Your task to perform on an android device: add a label to a message in the gmail app Image 0: 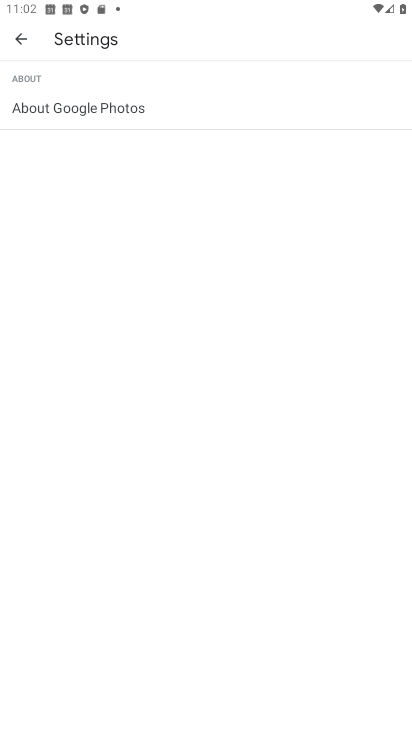
Step 0: drag from (264, 374) to (408, 96)
Your task to perform on an android device: add a label to a message in the gmail app Image 1: 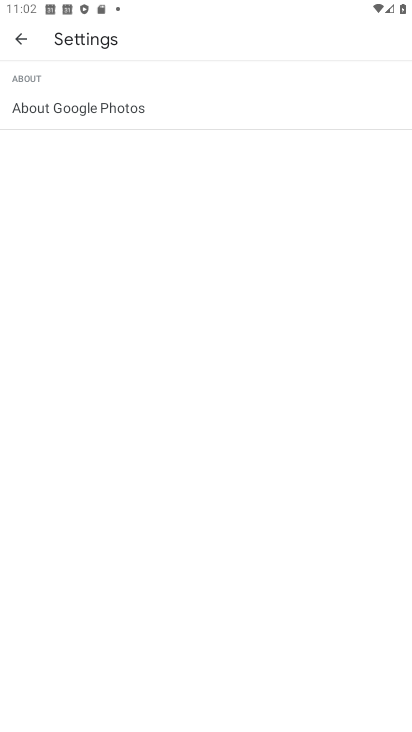
Step 1: press home button
Your task to perform on an android device: add a label to a message in the gmail app Image 2: 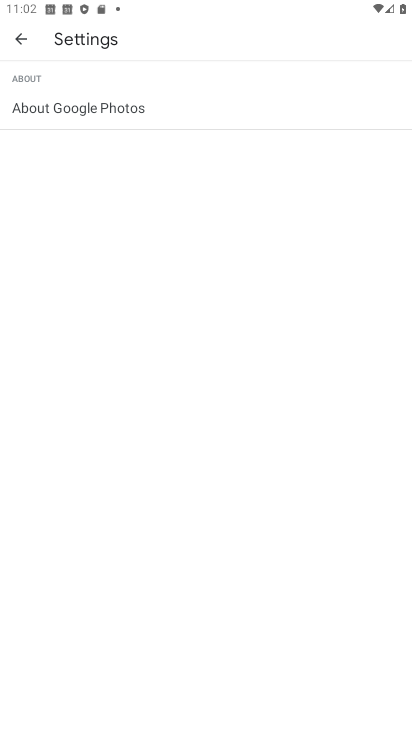
Step 2: press home button
Your task to perform on an android device: add a label to a message in the gmail app Image 3: 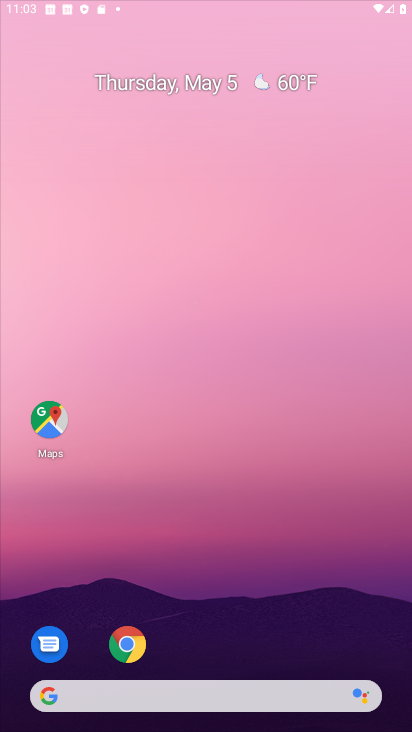
Step 3: press home button
Your task to perform on an android device: add a label to a message in the gmail app Image 4: 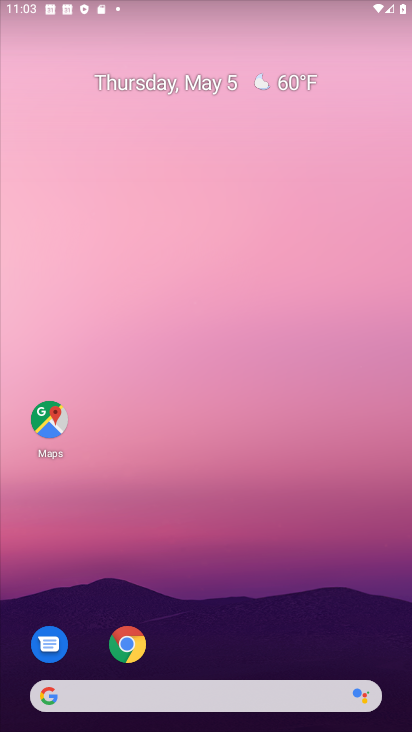
Step 4: press home button
Your task to perform on an android device: add a label to a message in the gmail app Image 5: 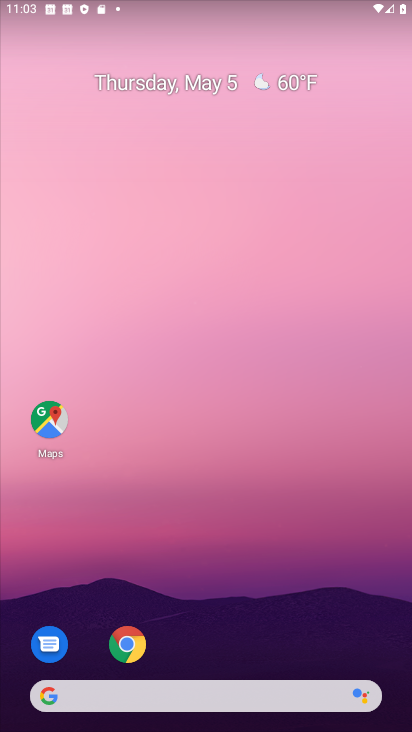
Step 5: drag from (197, 629) to (181, 208)
Your task to perform on an android device: add a label to a message in the gmail app Image 6: 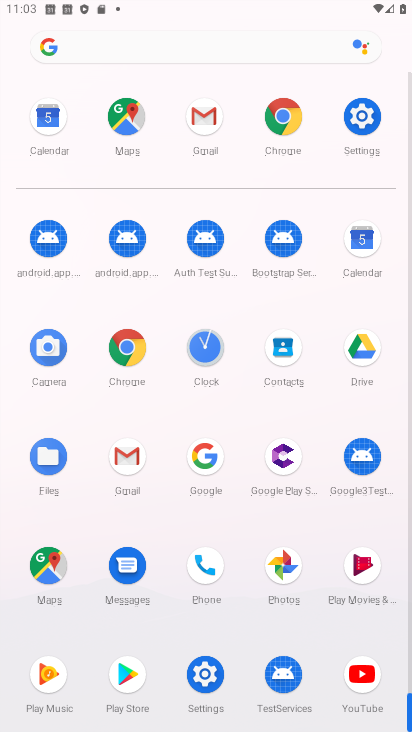
Step 6: click (128, 444)
Your task to perform on an android device: add a label to a message in the gmail app Image 7: 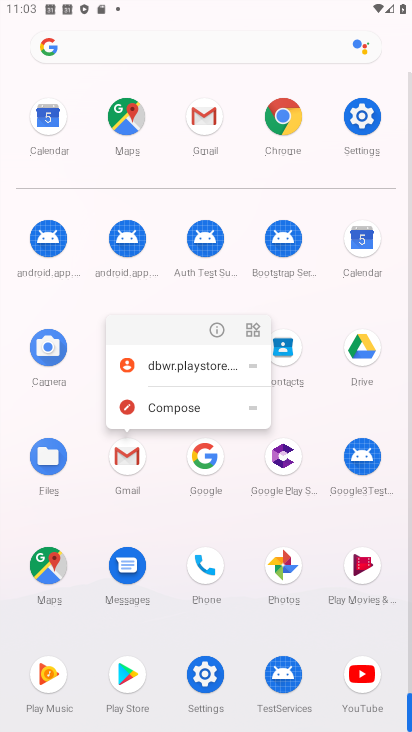
Step 7: click (216, 321)
Your task to perform on an android device: add a label to a message in the gmail app Image 8: 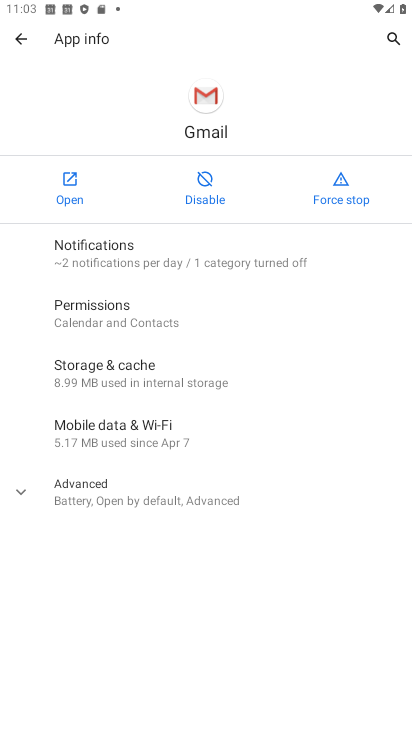
Step 8: click (74, 203)
Your task to perform on an android device: add a label to a message in the gmail app Image 9: 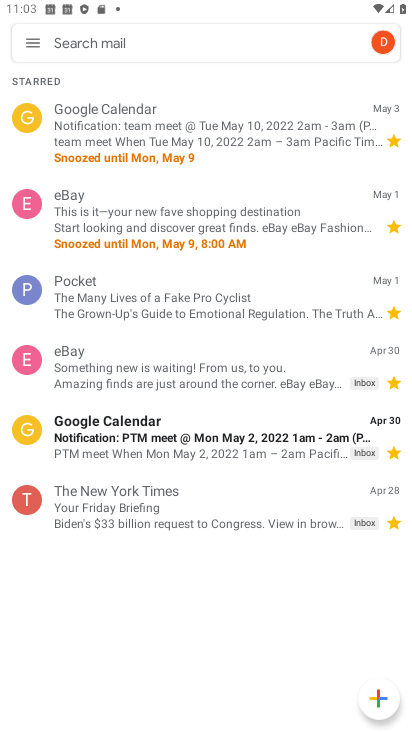
Step 9: click (36, 40)
Your task to perform on an android device: add a label to a message in the gmail app Image 10: 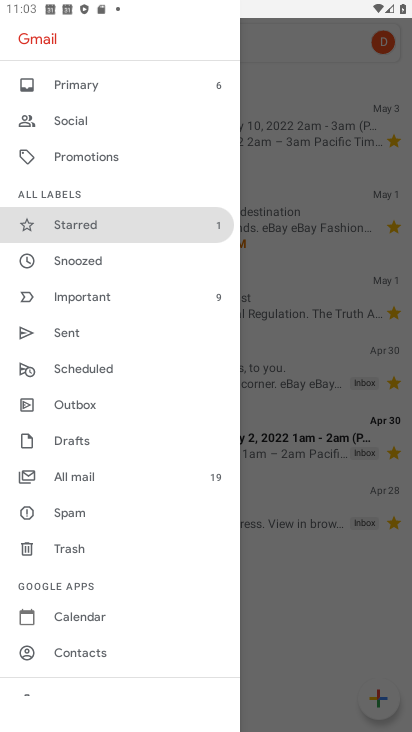
Step 10: click (328, 137)
Your task to perform on an android device: add a label to a message in the gmail app Image 11: 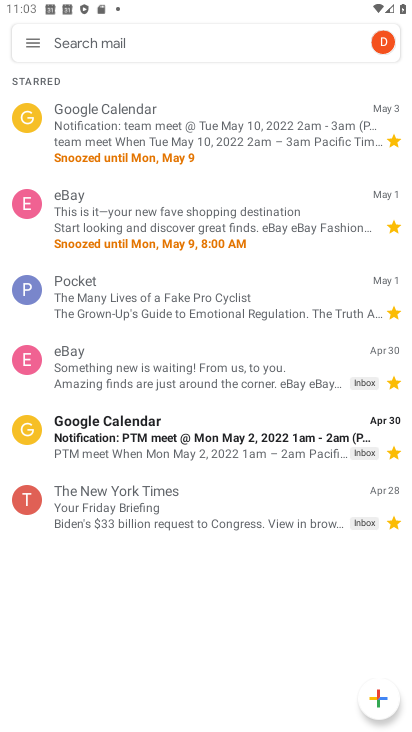
Step 11: click (25, 32)
Your task to perform on an android device: add a label to a message in the gmail app Image 12: 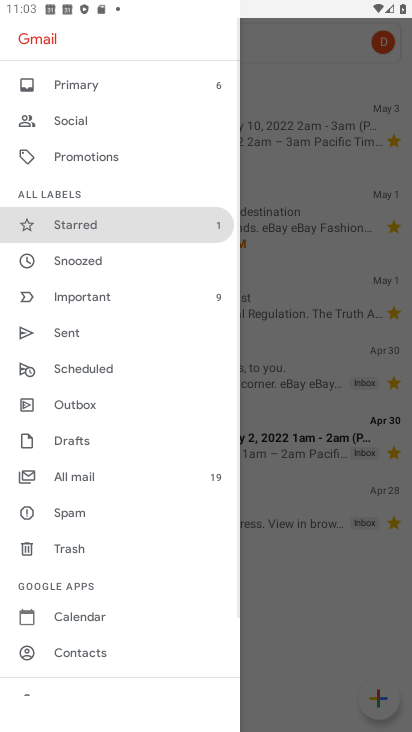
Step 12: click (93, 77)
Your task to perform on an android device: add a label to a message in the gmail app Image 13: 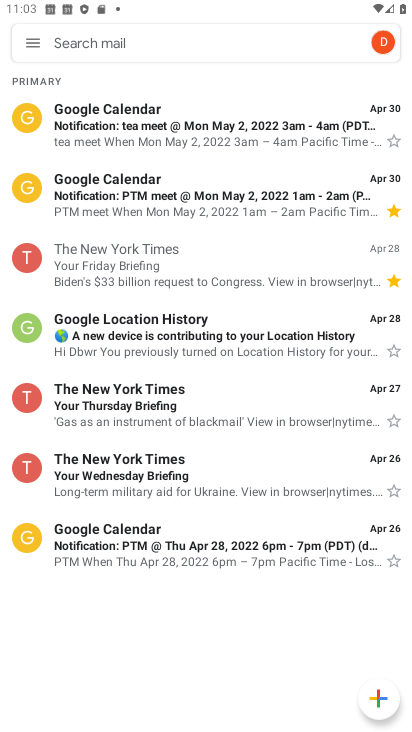
Step 13: click (183, 130)
Your task to perform on an android device: add a label to a message in the gmail app Image 14: 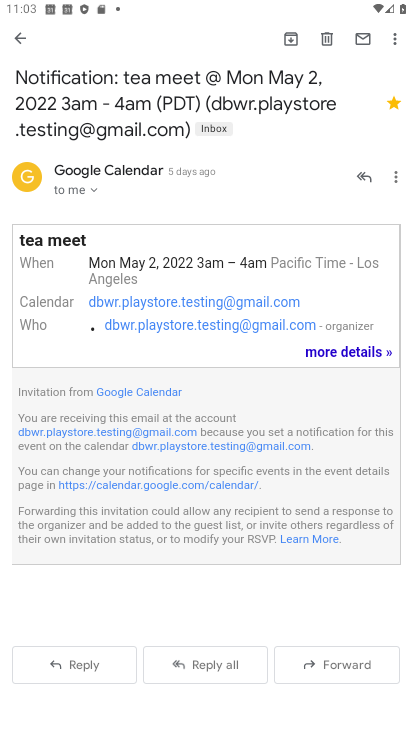
Step 14: click (399, 33)
Your task to perform on an android device: add a label to a message in the gmail app Image 15: 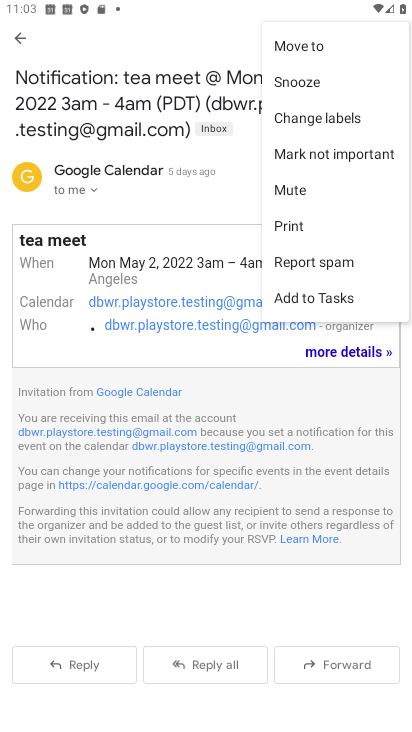
Step 15: click (299, 116)
Your task to perform on an android device: add a label to a message in the gmail app Image 16: 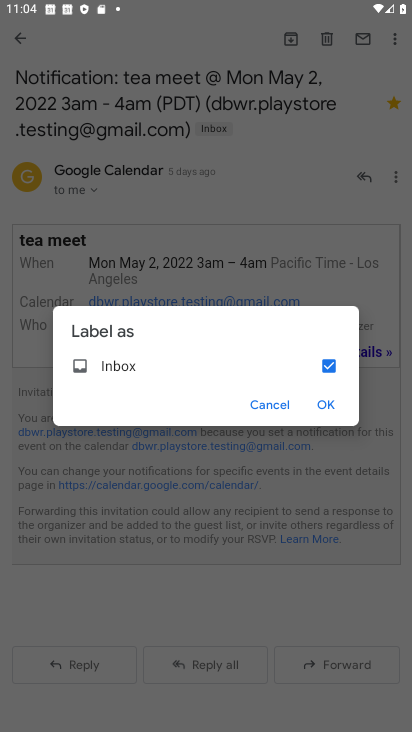
Step 16: click (329, 401)
Your task to perform on an android device: add a label to a message in the gmail app Image 17: 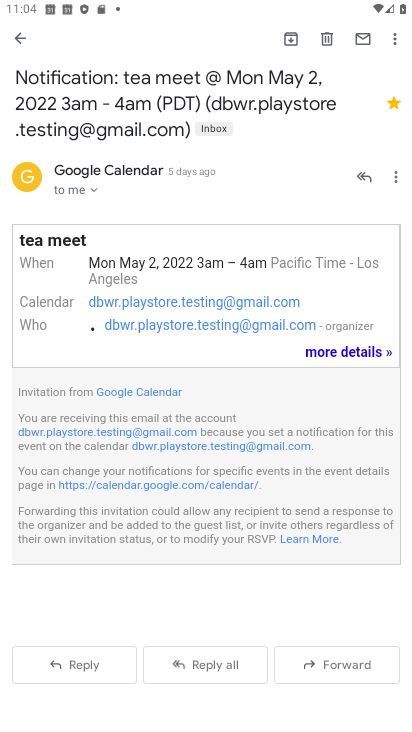
Step 17: task complete